Your task to perform on an android device: Clear the cart on ebay. Add asus zenbook to the cart on ebay Image 0: 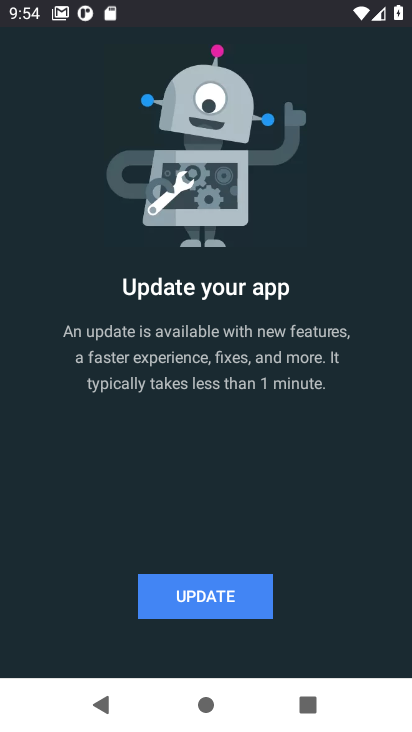
Step 0: press home button
Your task to perform on an android device: Clear the cart on ebay. Add asus zenbook to the cart on ebay Image 1: 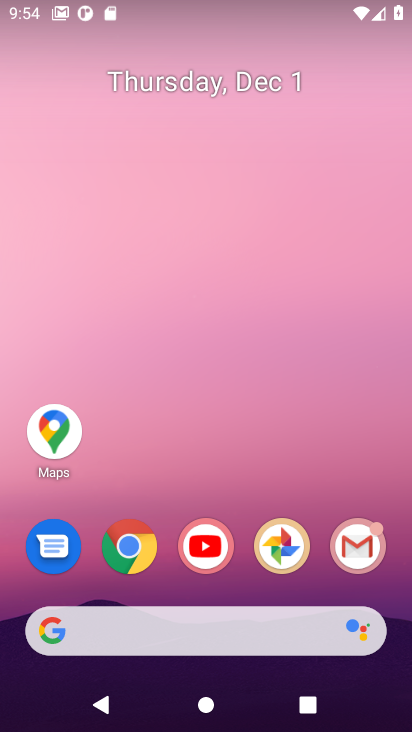
Step 1: click (117, 554)
Your task to perform on an android device: Clear the cart on ebay. Add asus zenbook to the cart on ebay Image 2: 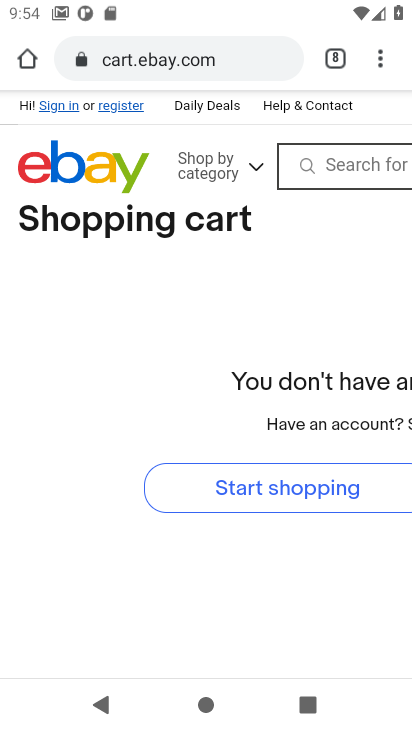
Step 2: click (327, 168)
Your task to perform on an android device: Clear the cart on ebay. Add asus zenbook to the cart on ebay Image 3: 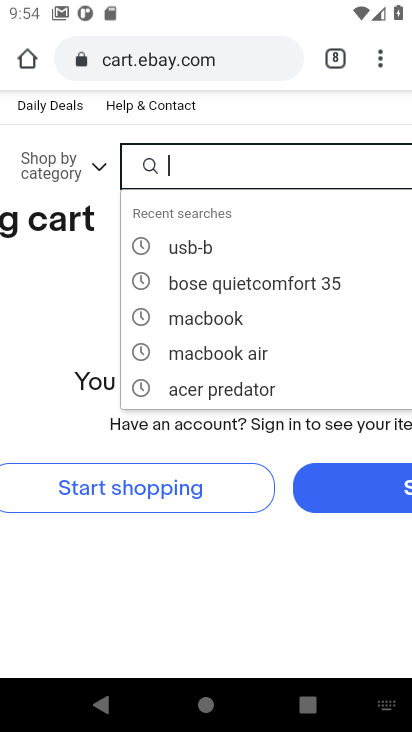
Step 3: type " asus zenbook"
Your task to perform on an android device: Clear the cart on ebay. Add asus zenbook to the cart on ebay Image 4: 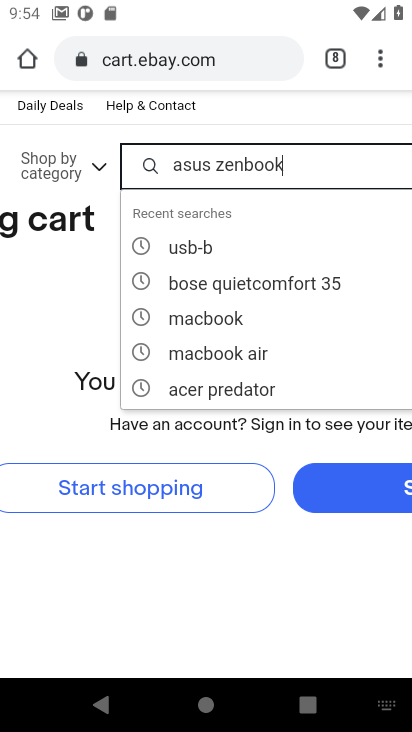
Step 4: drag from (338, 133) to (73, 149)
Your task to perform on an android device: Clear the cart on ebay. Add asus zenbook to the cart on ebay Image 5: 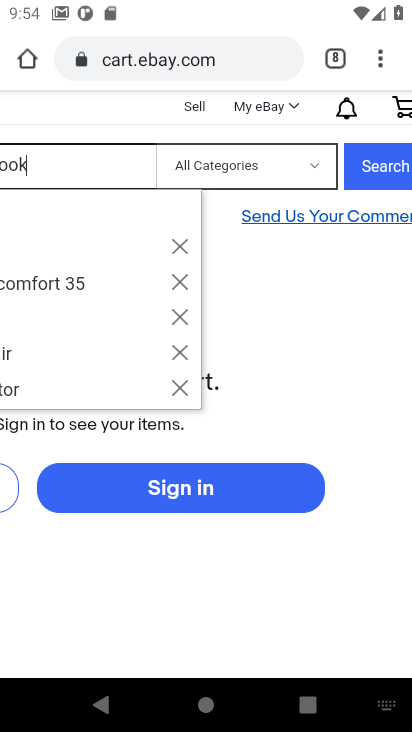
Step 5: click (363, 162)
Your task to perform on an android device: Clear the cart on ebay. Add asus zenbook to the cart on ebay Image 6: 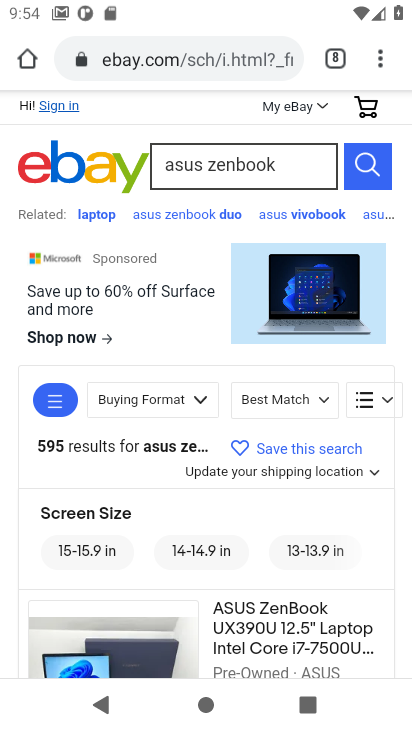
Step 6: drag from (151, 520) to (138, 254)
Your task to perform on an android device: Clear the cart on ebay. Add asus zenbook to the cart on ebay Image 7: 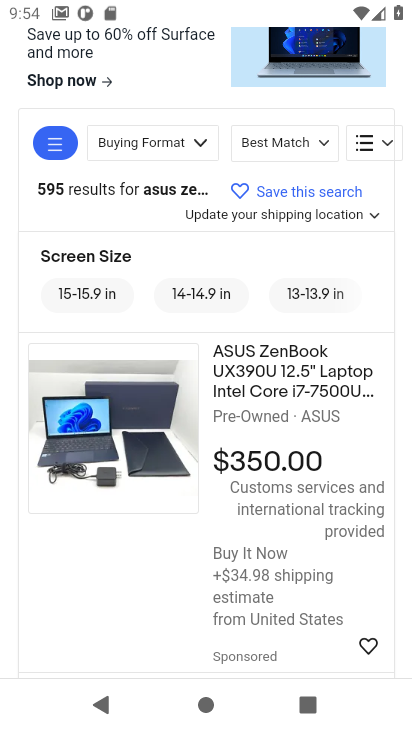
Step 7: click (248, 381)
Your task to perform on an android device: Clear the cart on ebay. Add asus zenbook to the cart on ebay Image 8: 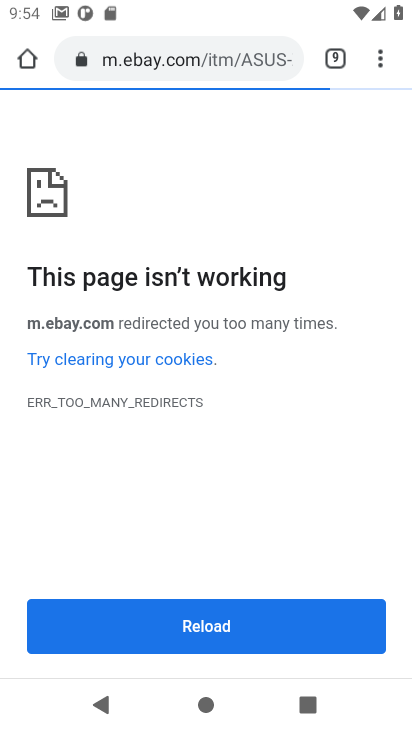
Step 8: task complete